Your task to perform on an android device: toggle location history Image 0: 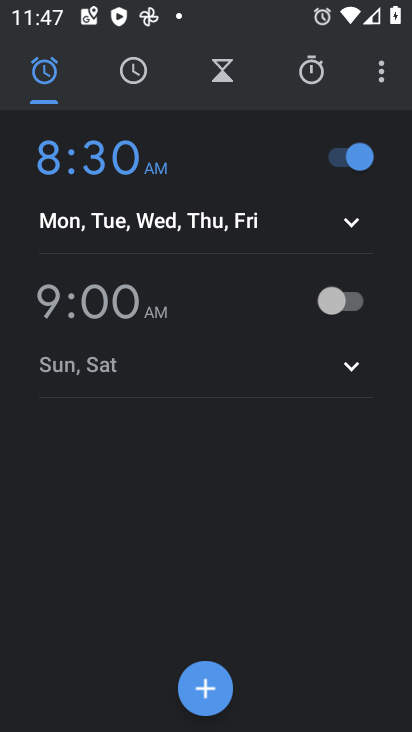
Step 0: press home button
Your task to perform on an android device: toggle location history Image 1: 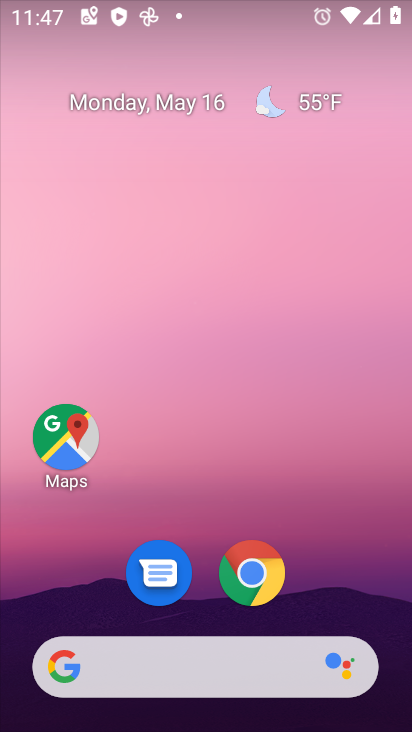
Step 1: drag from (348, 570) to (293, 128)
Your task to perform on an android device: toggle location history Image 2: 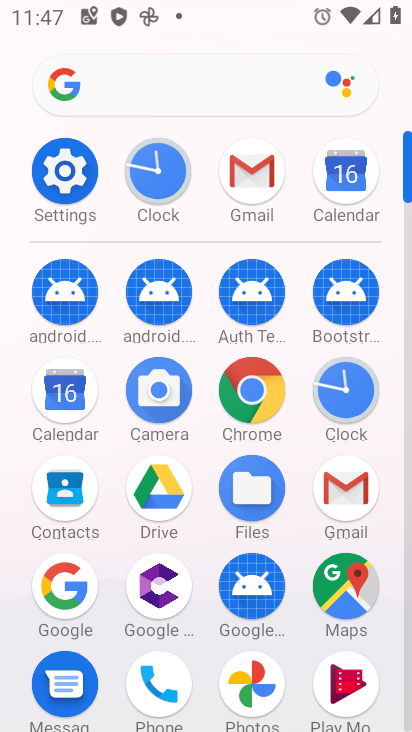
Step 2: drag from (204, 557) to (170, 470)
Your task to perform on an android device: toggle location history Image 3: 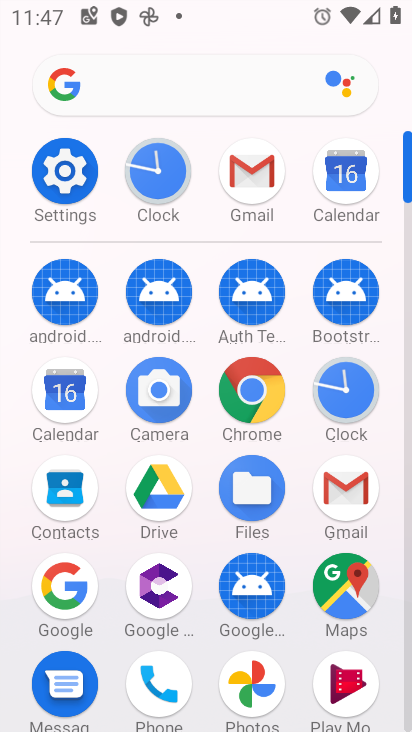
Step 3: click (76, 193)
Your task to perform on an android device: toggle location history Image 4: 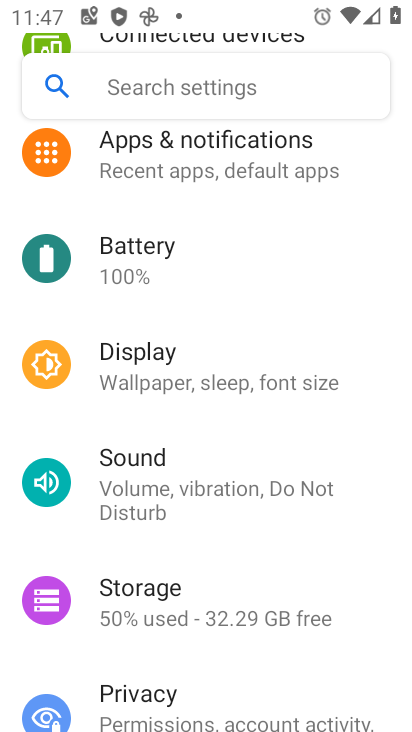
Step 4: drag from (232, 624) to (217, 329)
Your task to perform on an android device: toggle location history Image 5: 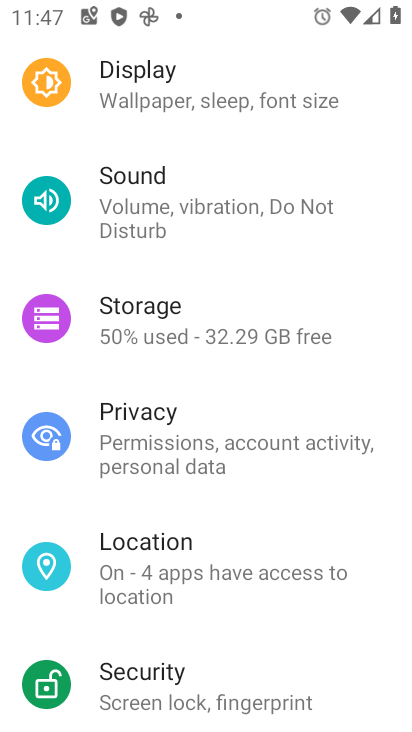
Step 5: click (207, 552)
Your task to perform on an android device: toggle location history Image 6: 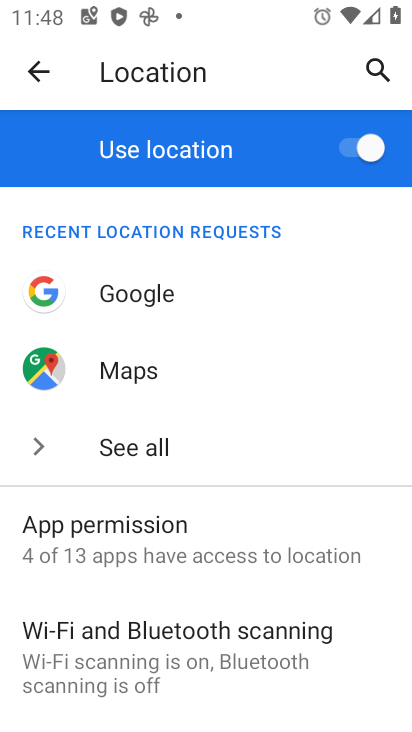
Step 6: drag from (259, 605) to (228, 325)
Your task to perform on an android device: toggle location history Image 7: 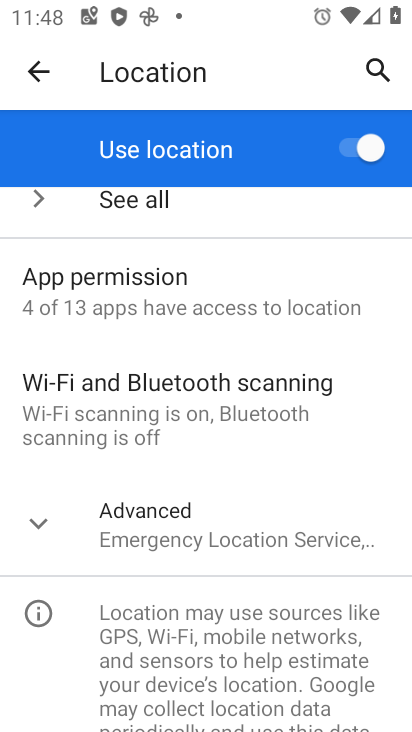
Step 7: click (218, 544)
Your task to perform on an android device: toggle location history Image 8: 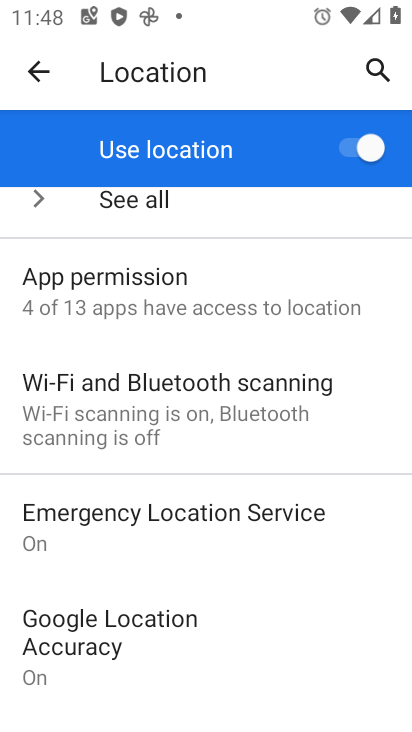
Step 8: drag from (227, 591) to (229, 415)
Your task to perform on an android device: toggle location history Image 9: 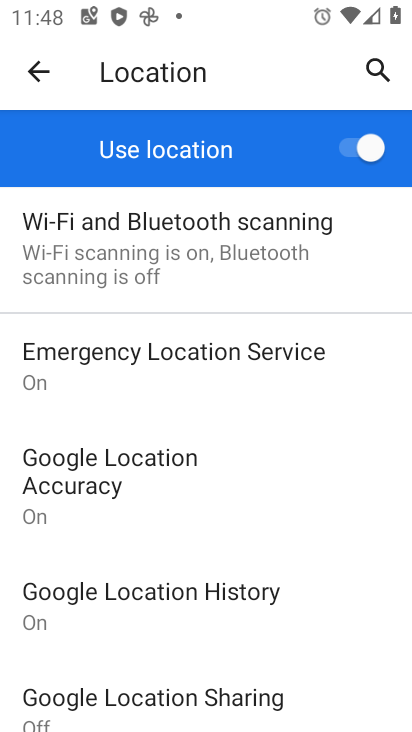
Step 9: click (171, 601)
Your task to perform on an android device: toggle location history Image 10: 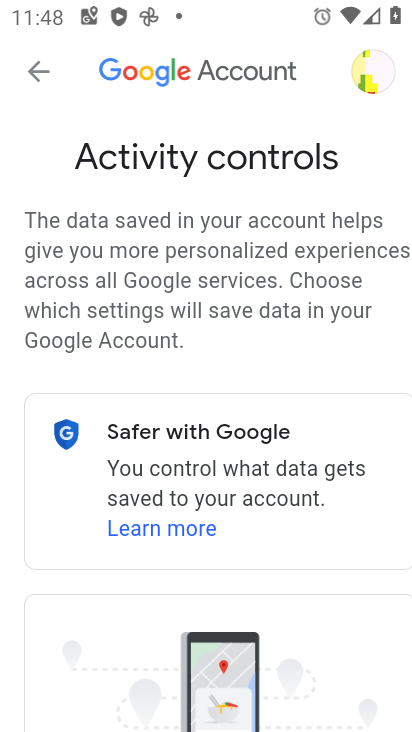
Step 10: drag from (351, 609) to (354, 335)
Your task to perform on an android device: toggle location history Image 11: 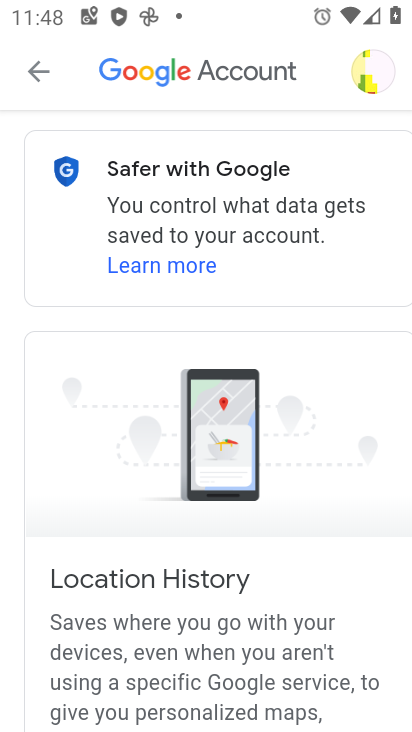
Step 11: drag from (346, 680) to (323, 317)
Your task to perform on an android device: toggle location history Image 12: 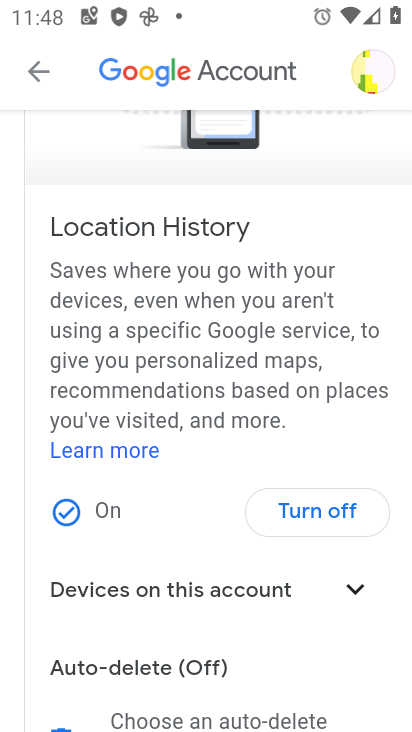
Step 12: click (288, 511)
Your task to perform on an android device: toggle location history Image 13: 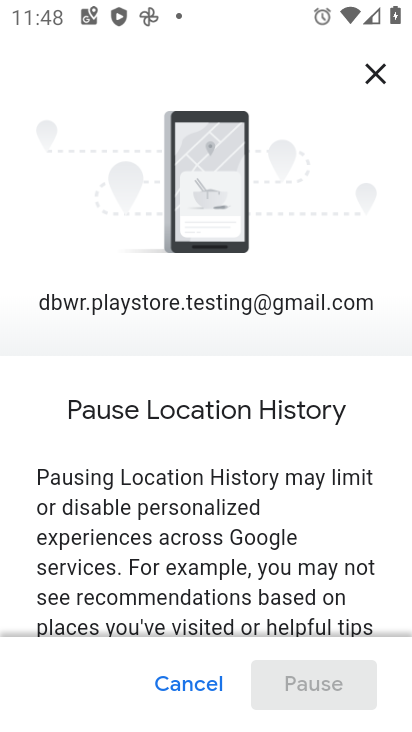
Step 13: drag from (277, 607) to (311, 97)
Your task to perform on an android device: toggle location history Image 14: 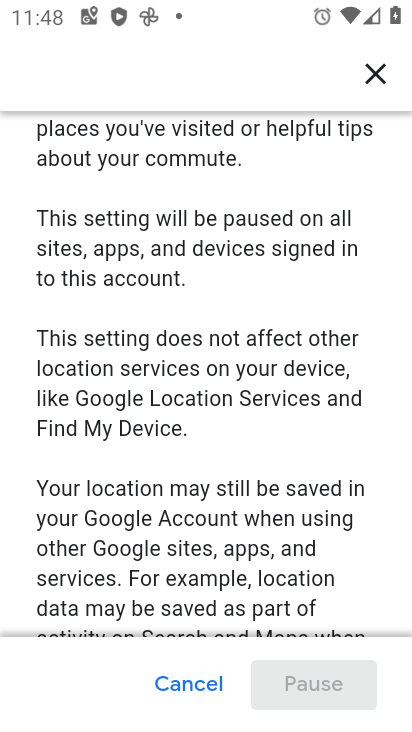
Step 14: drag from (364, 608) to (349, 270)
Your task to perform on an android device: toggle location history Image 15: 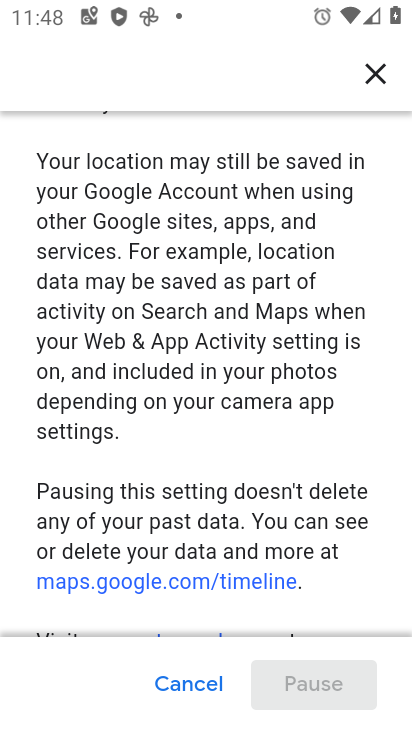
Step 15: drag from (362, 525) to (359, 93)
Your task to perform on an android device: toggle location history Image 16: 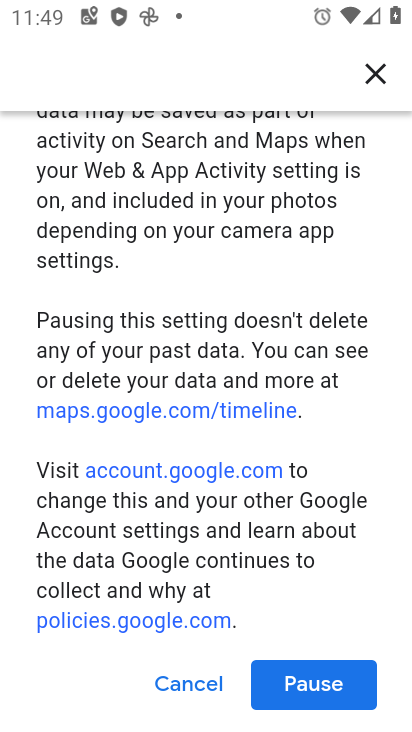
Step 16: click (283, 678)
Your task to perform on an android device: toggle location history Image 17: 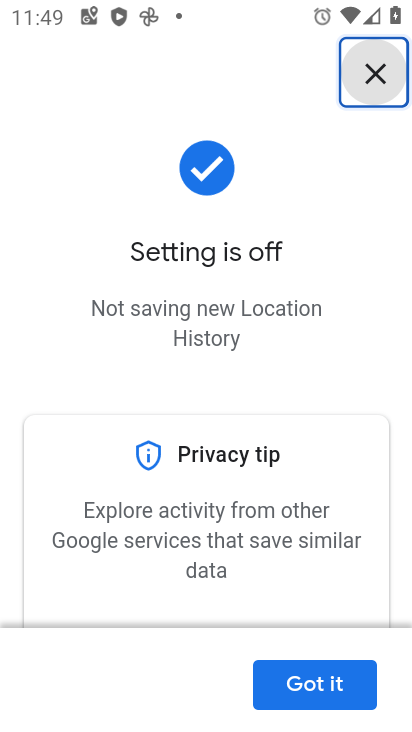
Step 17: click (357, 683)
Your task to perform on an android device: toggle location history Image 18: 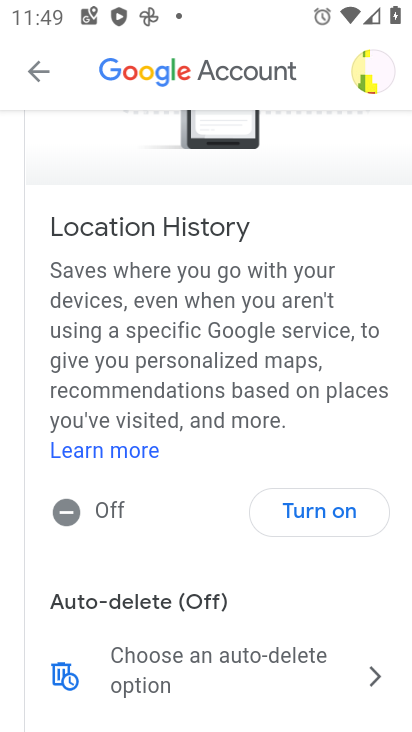
Step 18: task complete